Your task to perform on an android device: toggle notifications settings in the gmail app Image 0: 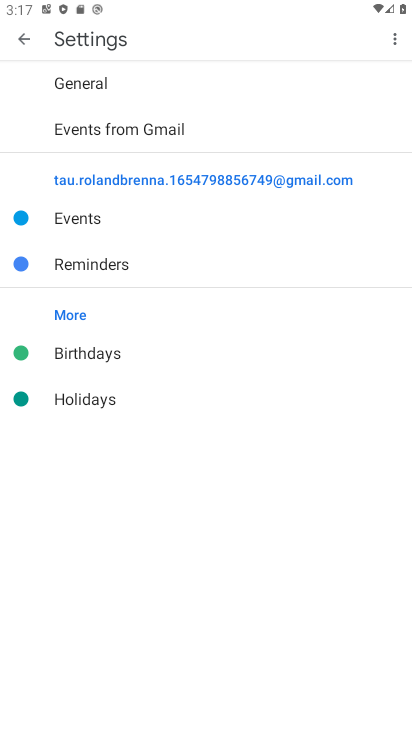
Step 0: drag from (173, 627) to (267, 256)
Your task to perform on an android device: toggle notifications settings in the gmail app Image 1: 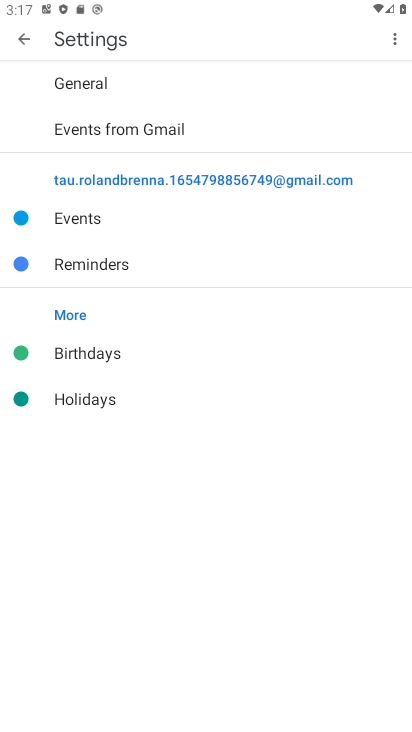
Step 1: press home button
Your task to perform on an android device: toggle notifications settings in the gmail app Image 2: 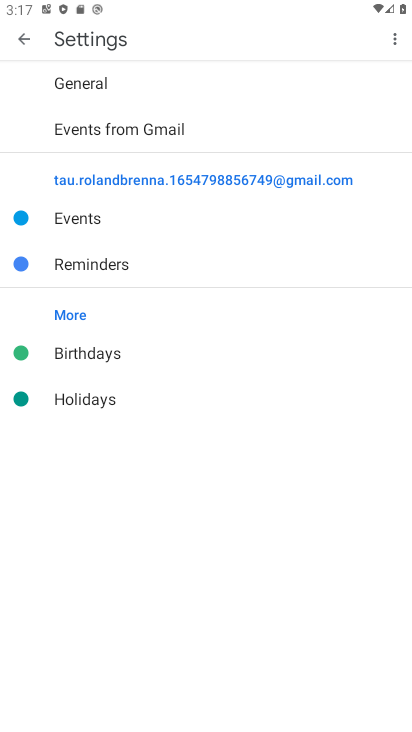
Step 2: press home button
Your task to perform on an android device: toggle notifications settings in the gmail app Image 3: 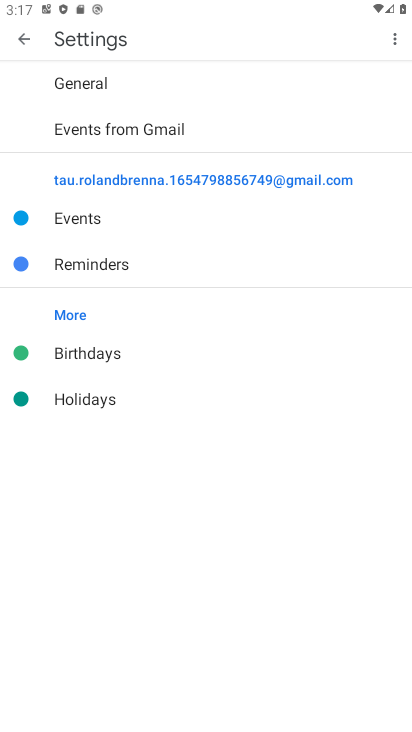
Step 3: click (311, 90)
Your task to perform on an android device: toggle notifications settings in the gmail app Image 4: 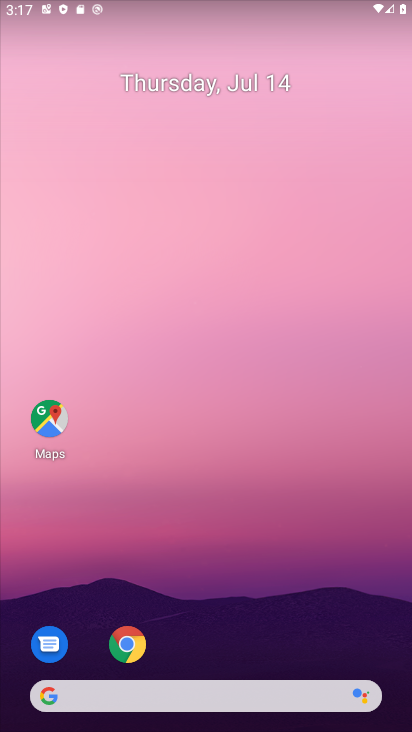
Step 4: drag from (159, 639) to (328, 119)
Your task to perform on an android device: toggle notifications settings in the gmail app Image 5: 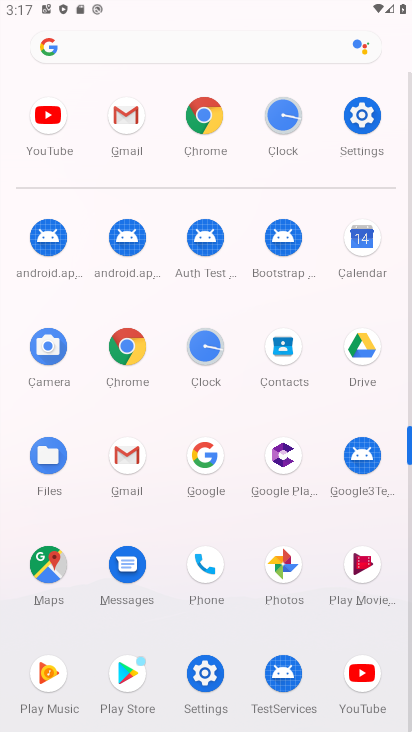
Step 5: click (132, 451)
Your task to perform on an android device: toggle notifications settings in the gmail app Image 6: 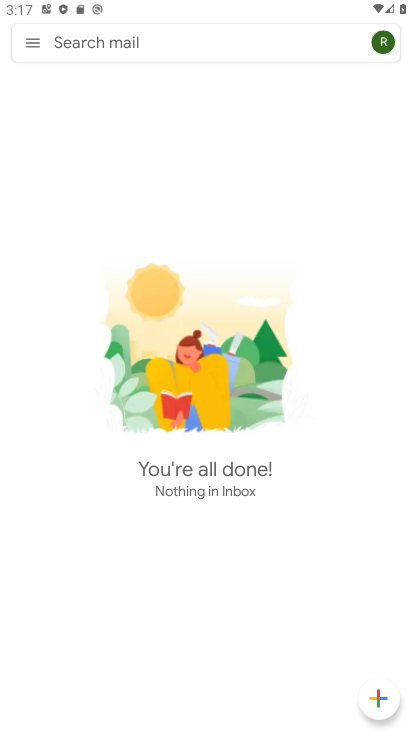
Step 6: drag from (210, 568) to (239, 360)
Your task to perform on an android device: toggle notifications settings in the gmail app Image 7: 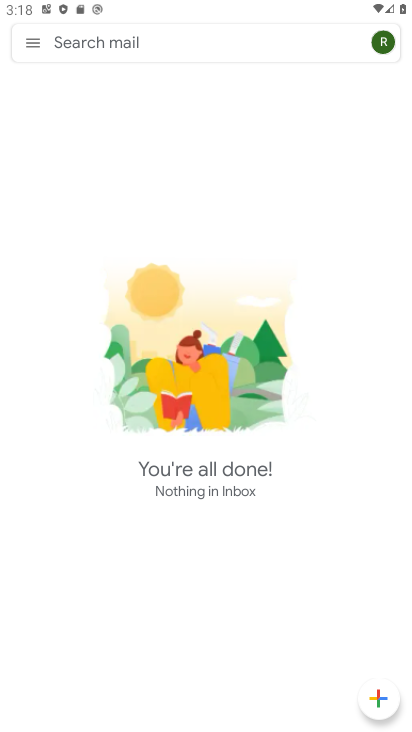
Step 7: click (24, 51)
Your task to perform on an android device: toggle notifications settings in the gmail app Image 8: 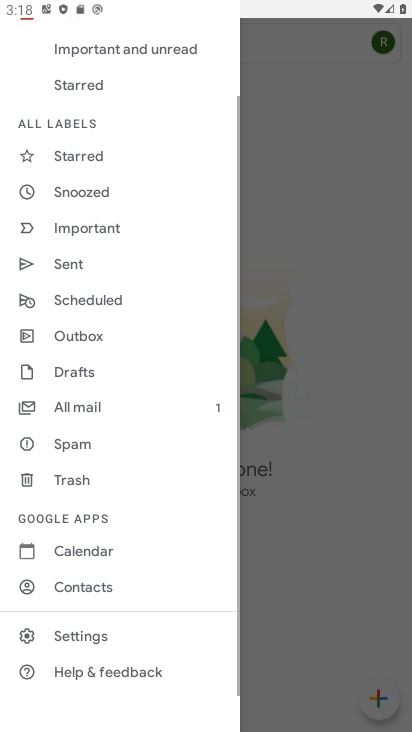
Step 8: drag from (82, 534) to (135, 302)
Your task to perform on an android device: toggle notifications settings in the gmail app Image 9: 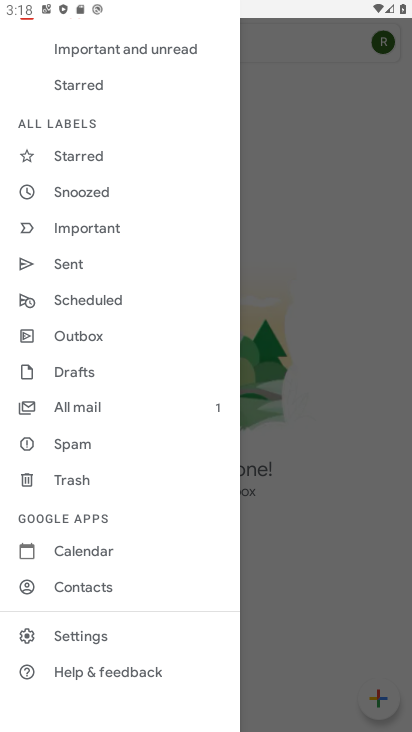
Step 9: click (71, 629)
Your task to perform on an android device: toggle notifications settings in the gmail app Image 10: 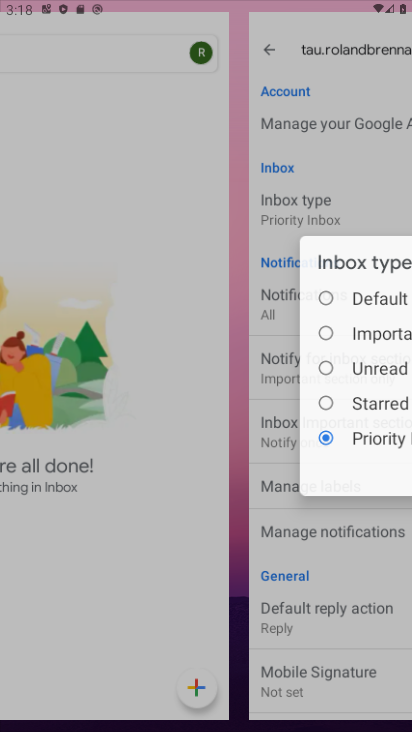
Step 10: drag from (153, 639) to (233, 236)
Your task to perform on an android device: toggle notifications settings in the gmail app Image 11: 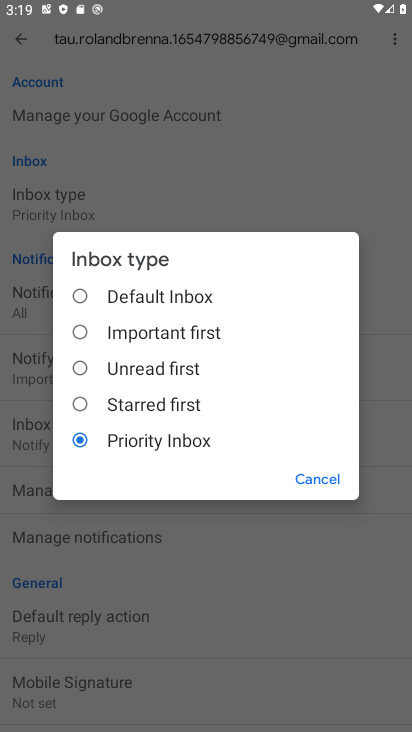
Step 11: press home button
Your task to perform on an android device: toggle notifications settings in the gmail app Image 12: 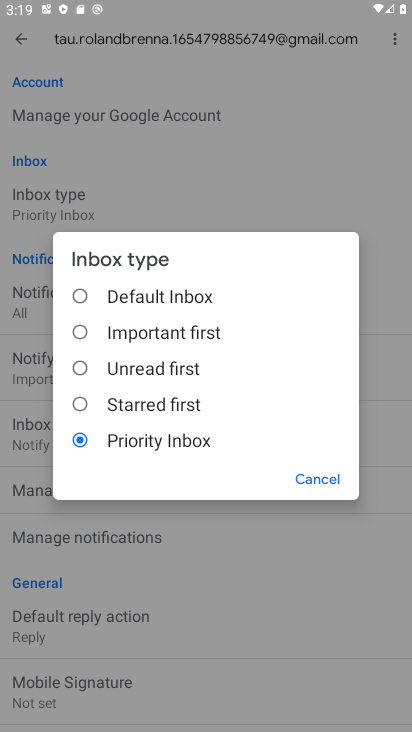
Step 12: drag from (171, 550) to (263, 169)
Your task to perform on an android device: toggle notifications settings in the gmail app Image 13: 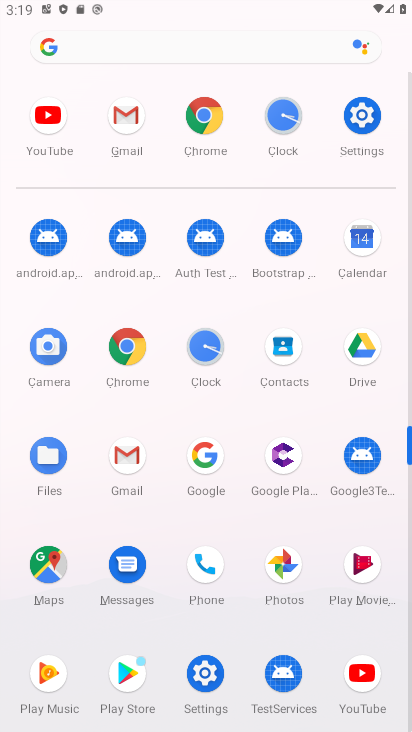
Step 13: click (128, 449)
Your task to perform on an android device: toggle notifications settings in the gmail app Image 14: 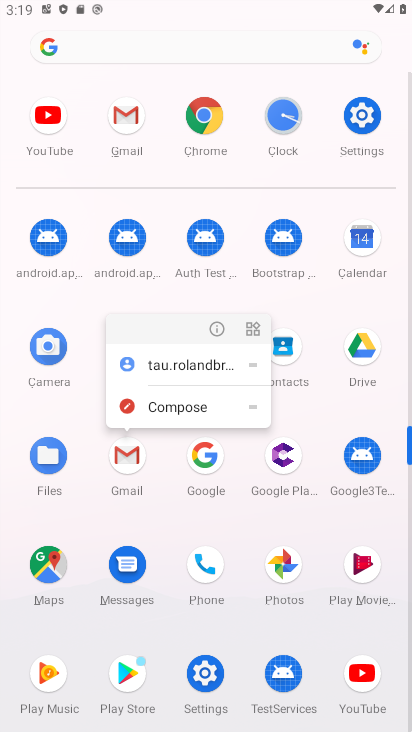
Step 14: click (214, 327)
Your task to perform on an android device: toggle notifications settings in the gmail app Image 15: 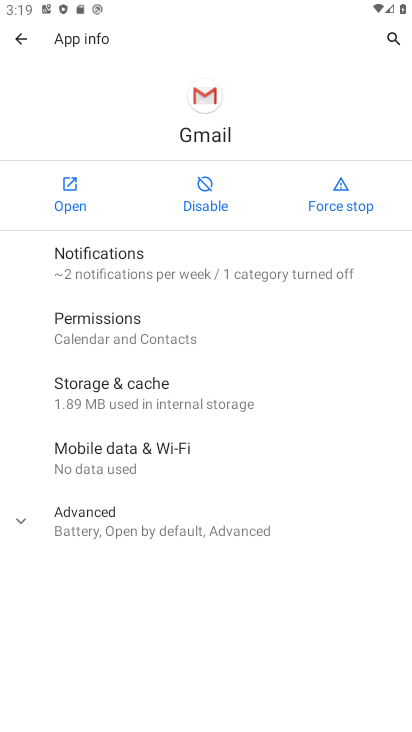
Step 15: click (54, 168)
Your task to perform on an android device: toggle notifications settings in the gmail app Image 16: 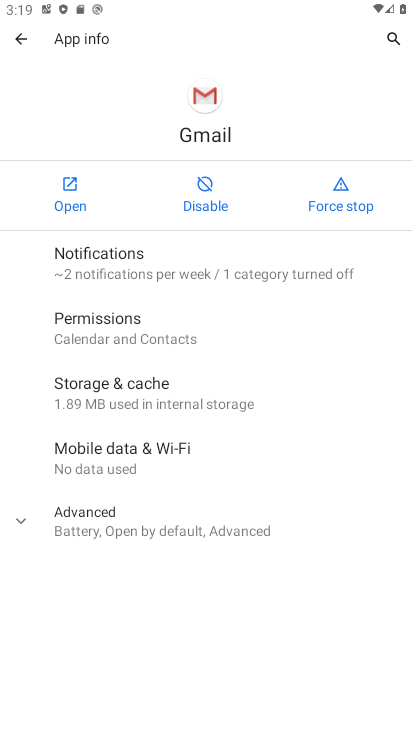
Step 16: click (55, 170)
Your task to perform on an android device: toggle notifications settings in the gmail app Image 17: 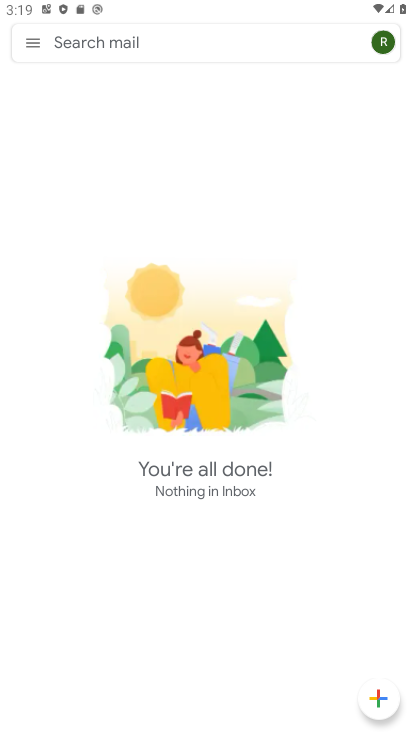
Step 17: click (38, 33)
Your task to perform on an android device: toggle notifications settings in the gmail app Image 18: 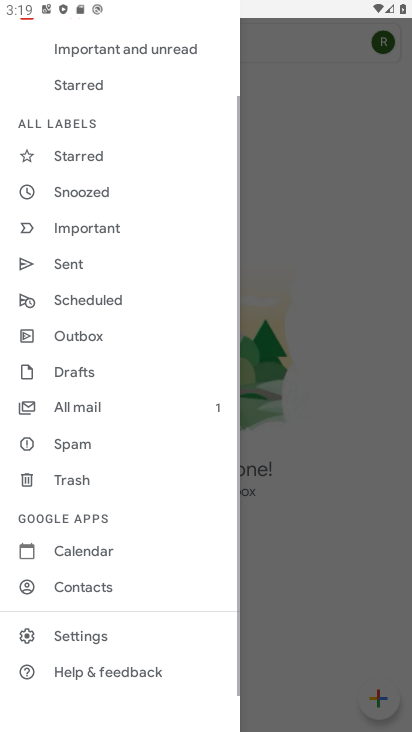
Step 18: click (93, 648)
Your task to perform on an android device: toggle notifications settings in the gmail app Image 19: 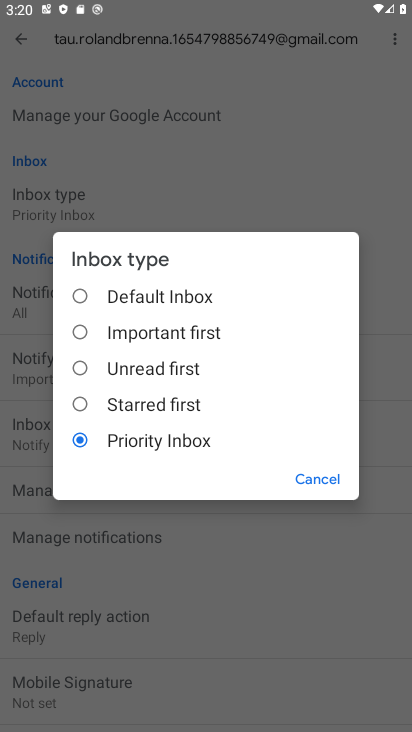
Step 19: click (298, 479)
Your task to perform on an android device: toggle notifications settings in the gmail app Image 20: 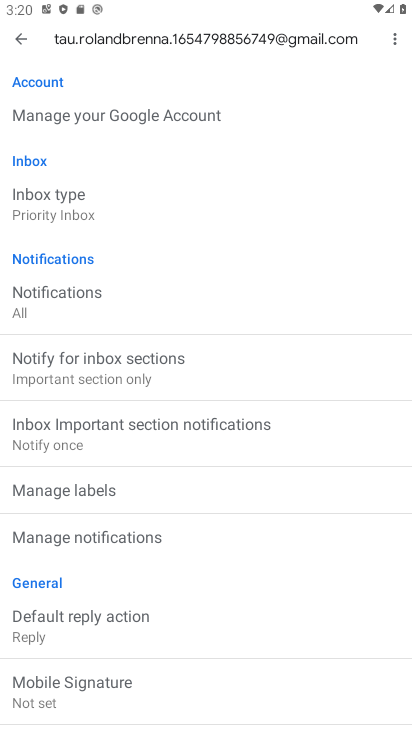
Step 20: click (60, 543)
Your task to perform on an android device: toggle notifications settings in the gmail app Image 21: 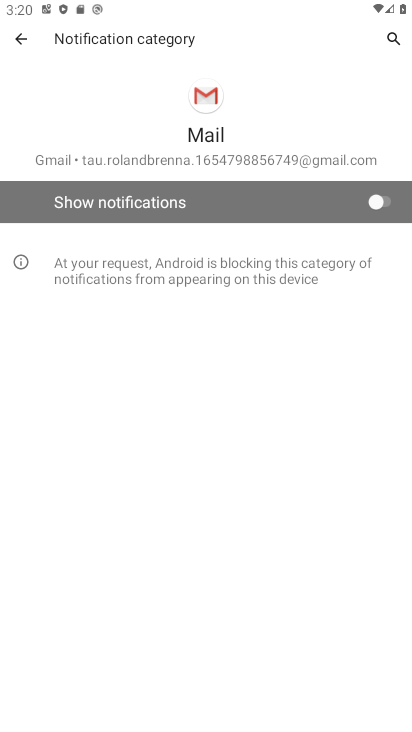
Step 21: click (379, 227)
Your task to perform on an android device: toggle notifications settings in the gmail app Image 22: 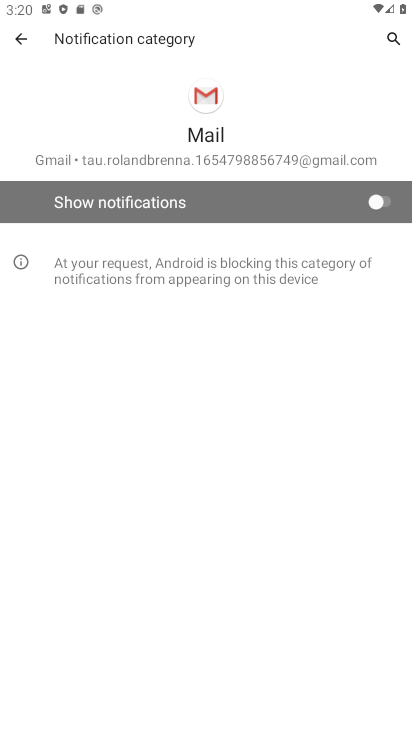
Step 22: click (309, 208)
Your task to perform on an android device: toggle notifications settings in the gmail app Image 23: 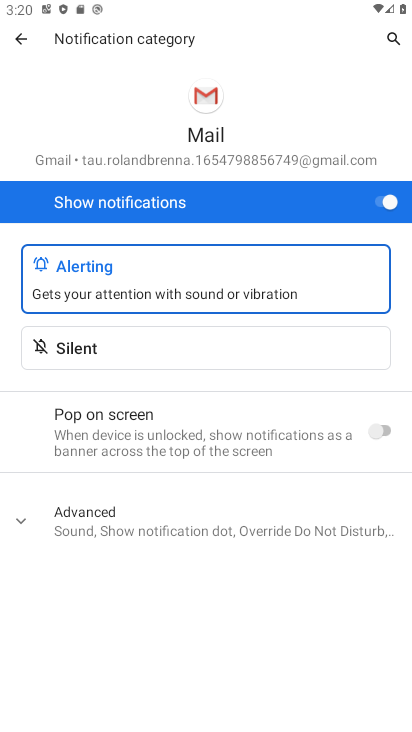
Step 23: task complete